Your task to perform on an android device: Go to sound settings Image 0: 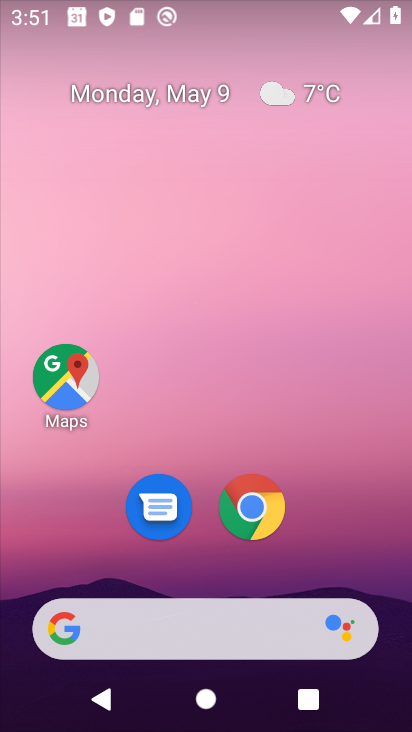
Step 0: drag from (248, 660) to (170, 194)
Your task to perform on an android device: Go to sound settings Image 1: 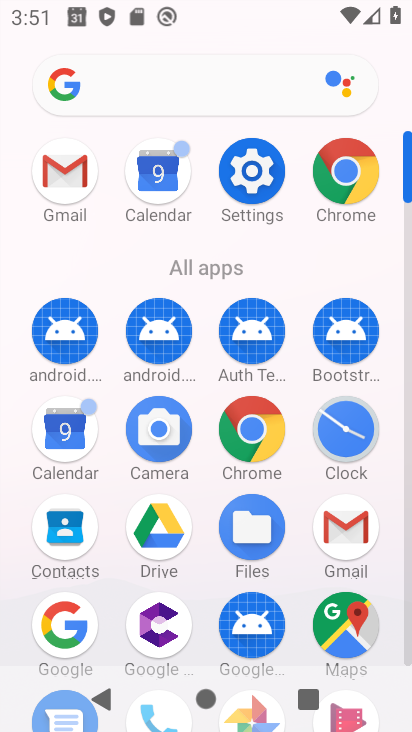
Step 1: click (255, 190)
Your task to perform on an android device: Go to sound settings Image 2: 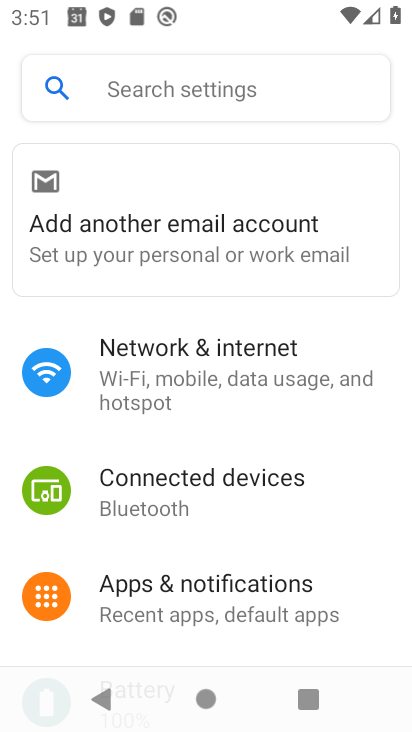
Step 2: click (134, 82)
Your task to perform on an android device: Go to sound settings Image 3: 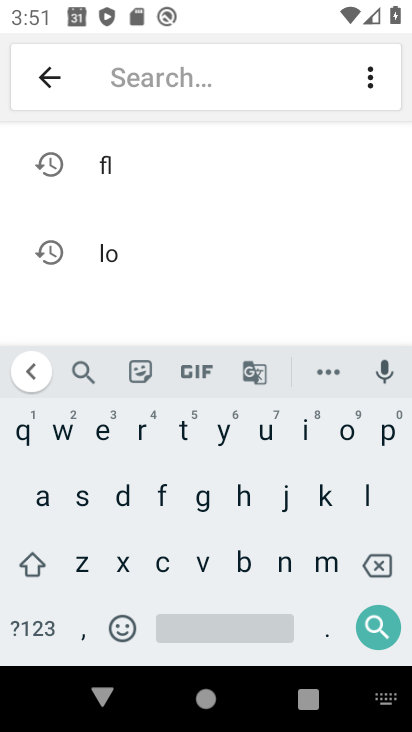
Step 3: click (77, 495)
Your task to perform on an android device: Go to sound settings Image 4: 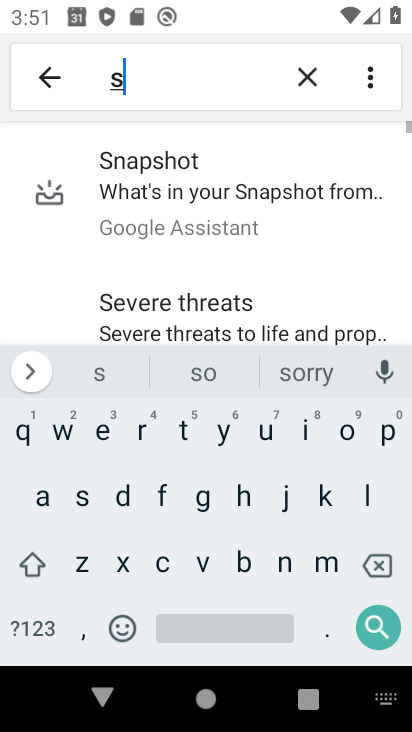
Step 4: click (339, 434)
Your task to perform on an android device: Go to sound settings Image 5: 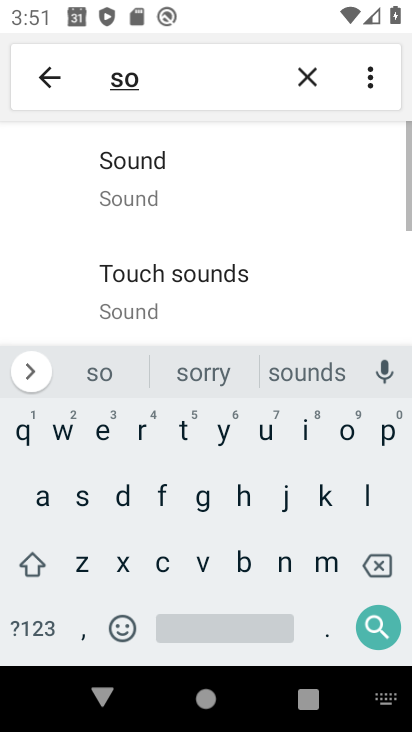
Step 5: click (172, 176)
Your task to perform on an android device: Go to sound settings Image 6: 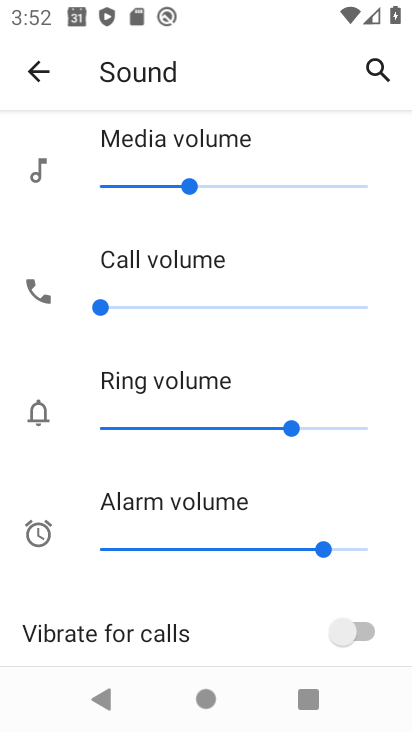
Step 6: task complete